Your task to perform on an android device: choose inbox layout in the gmail app Image 0: 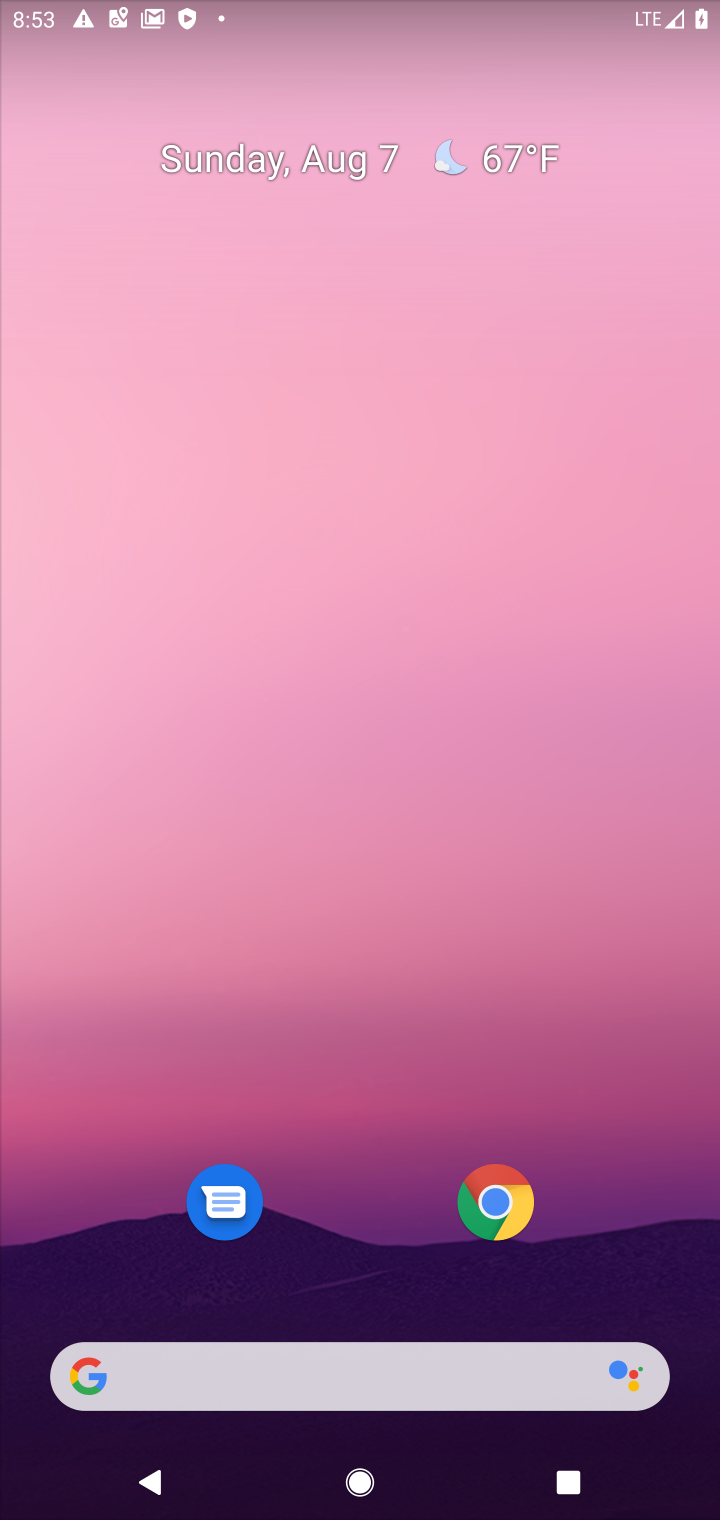
Step 0: drag from (371, 1263) to (488, 12)
Your task to perform on an android device: choose inbox layout in the gmail app Image 1: 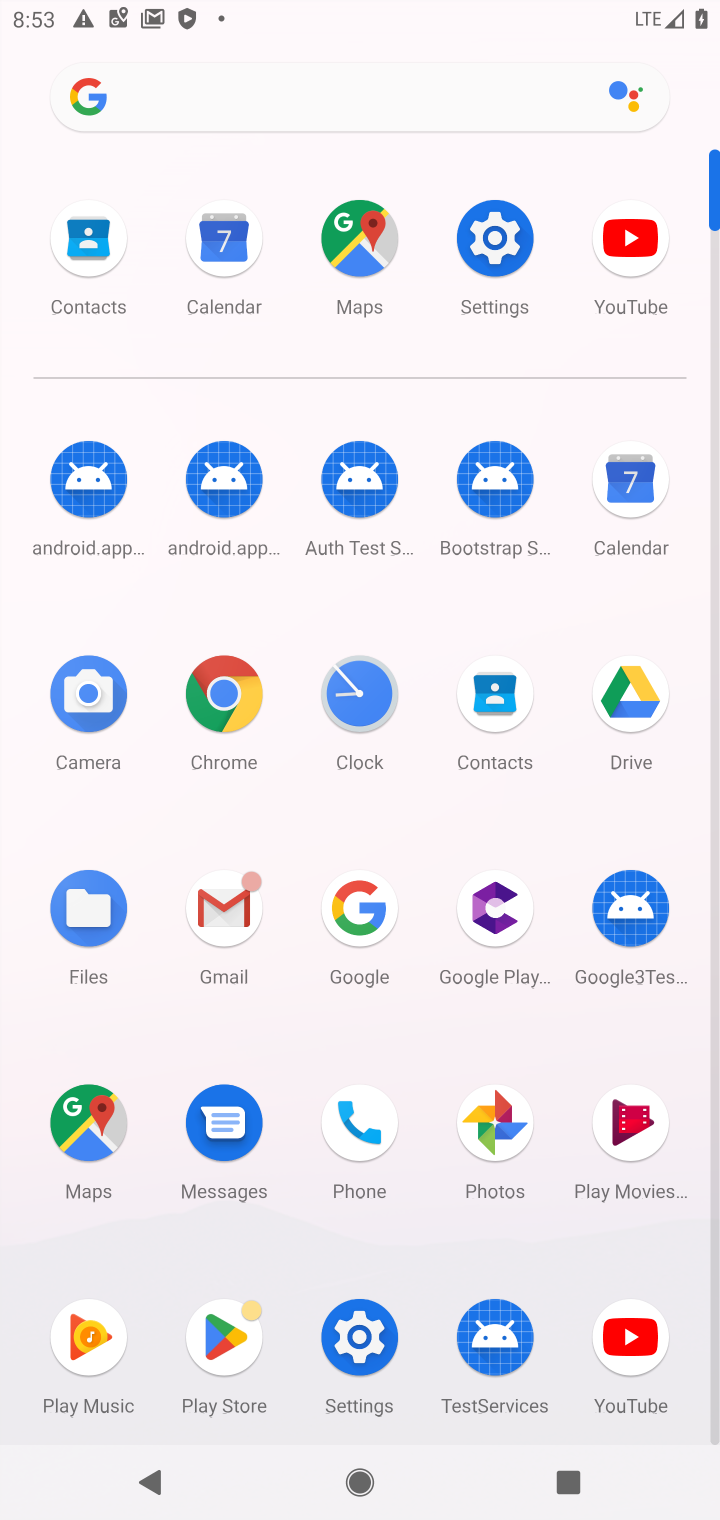
Step 1: click (188, 904)
Your task to perform on an android device: choose inbox layout in the gmail app Image 2: 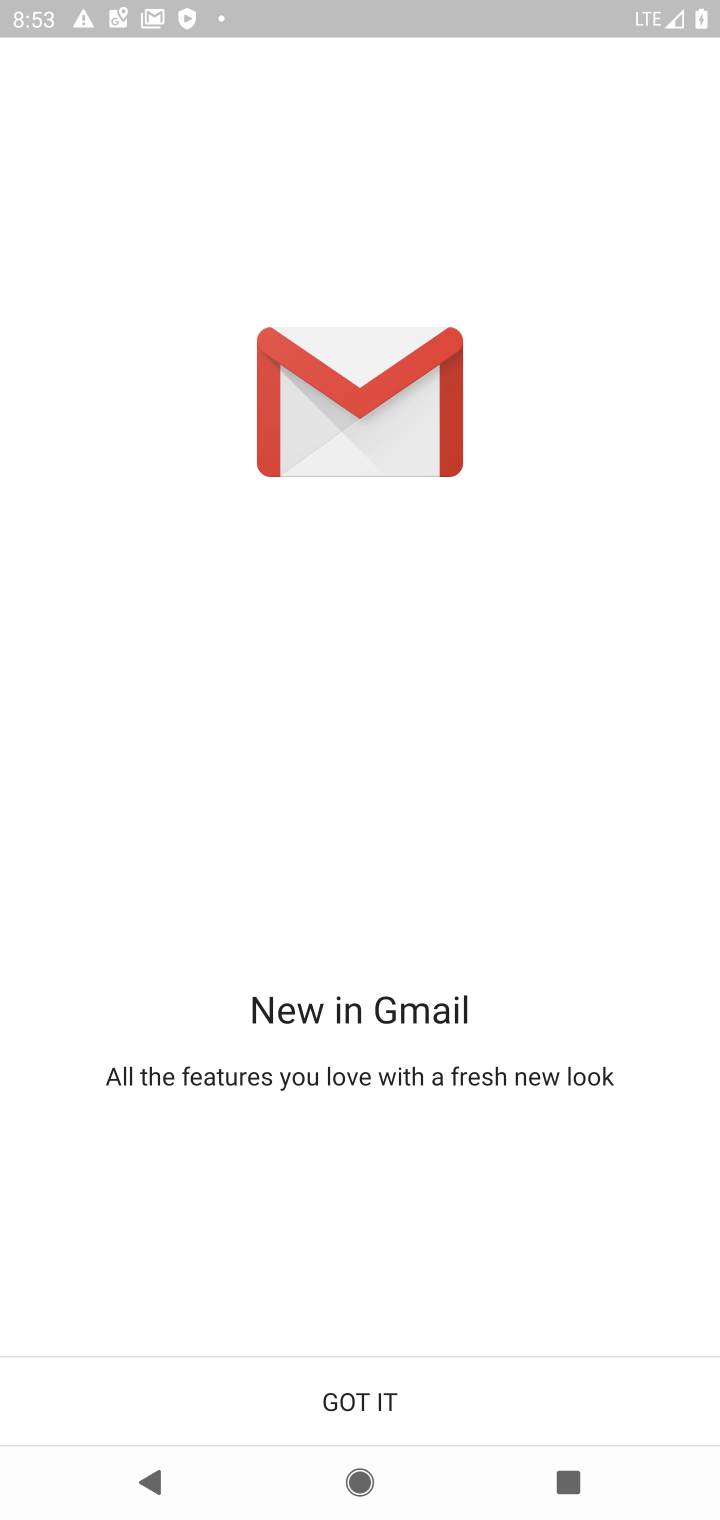
Step 2: click (513, 1388)
Your task to perform on an android device: choose inbox layout in the gmail app Image 3: 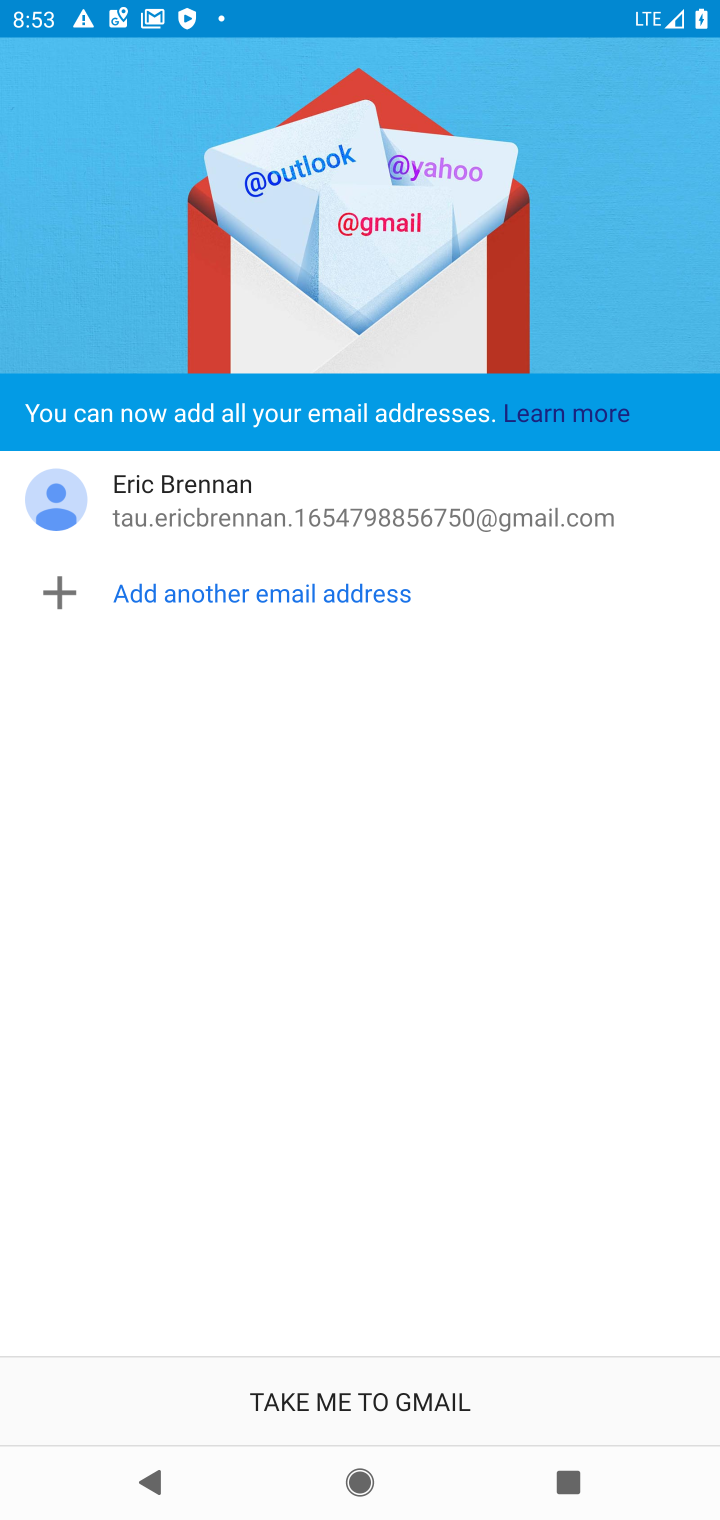
Step 3: click (513, 1388)
Your task to perform on an android device: choose inbox layout in the gmail app Image 4: 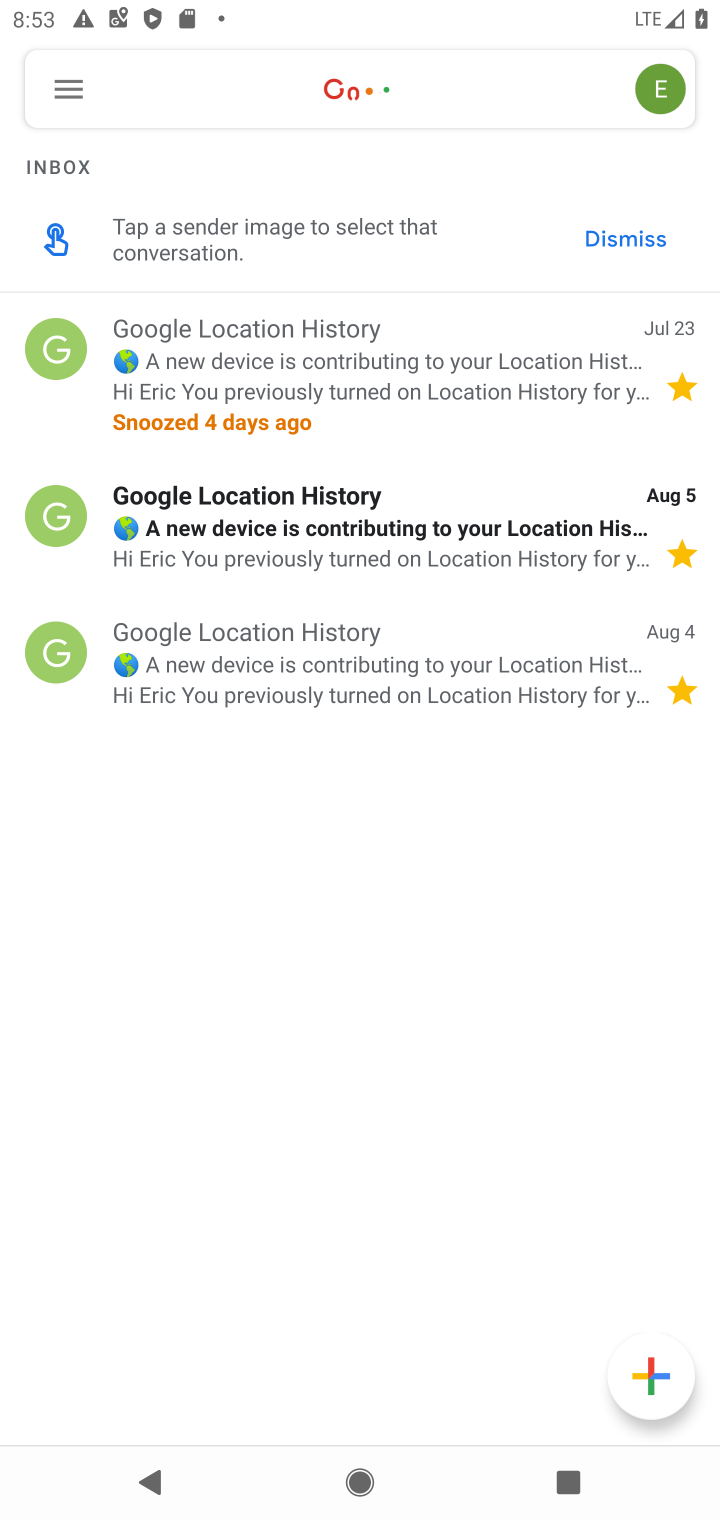
Step 4: click (80, 73)
Your task to perform on an android device: choose inbox layout in the gmail app Image 5: 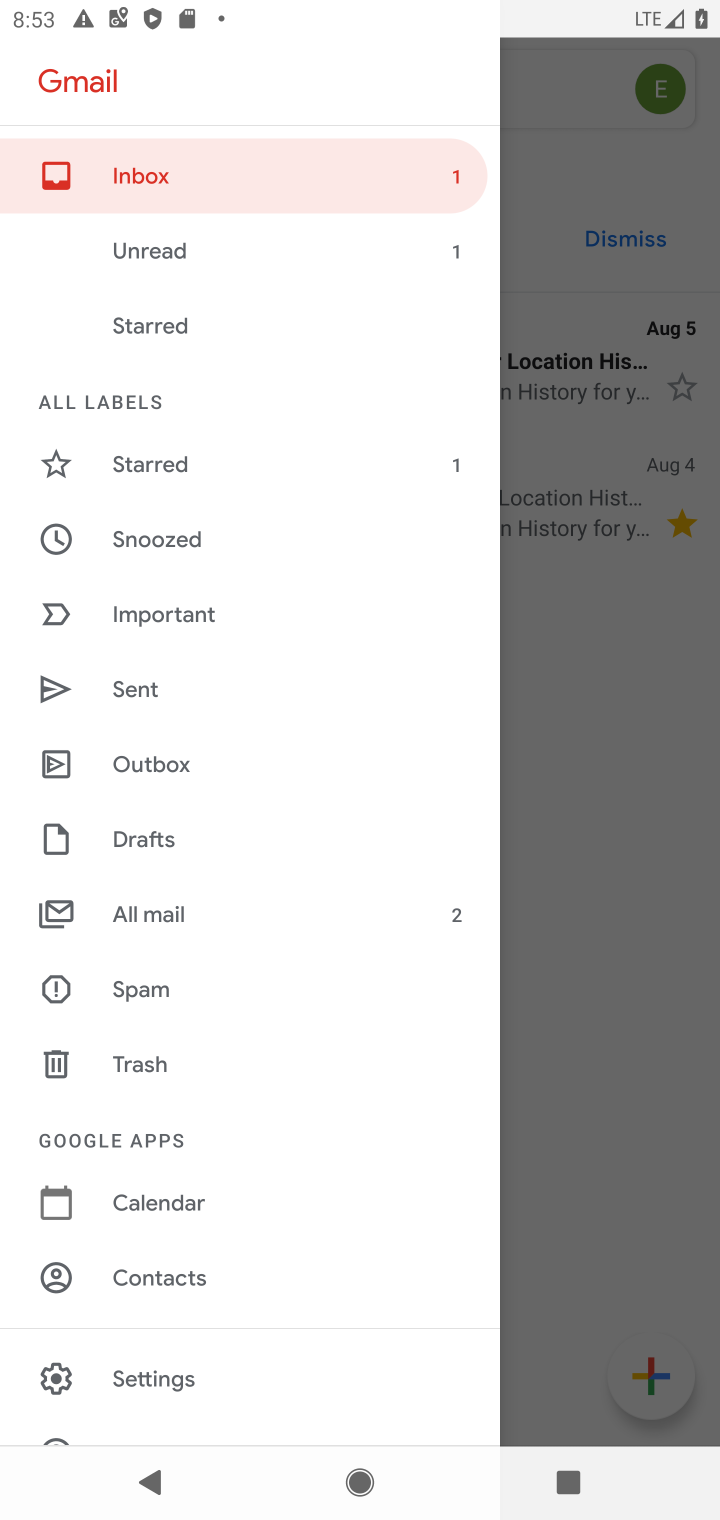
Step 5: click (216, 1371)
Your task to perform on an android device: choose inbox layout in the gmail app Image 6: 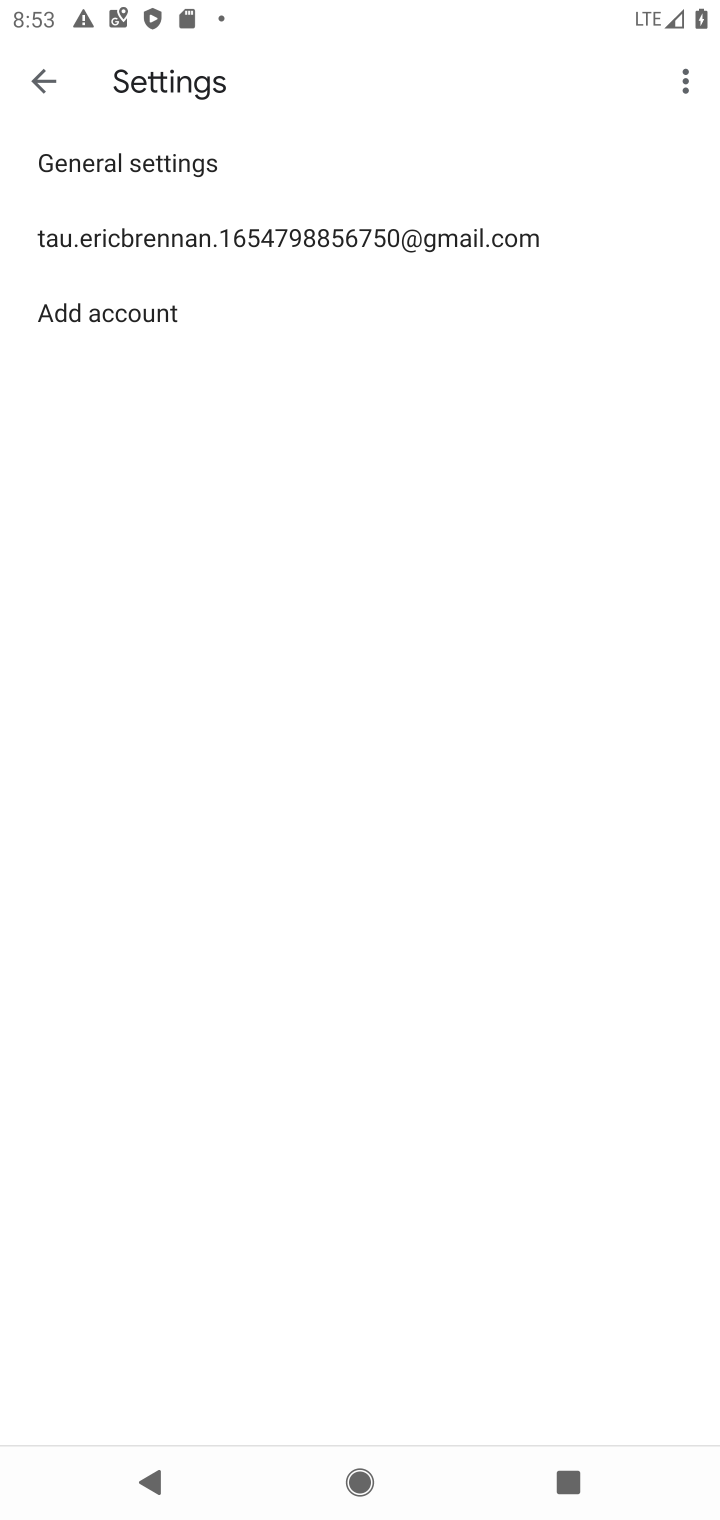
Step 6: click (376, 228)
Your task to perform on an android device: choose inbox layout in the gmail app Image 7: 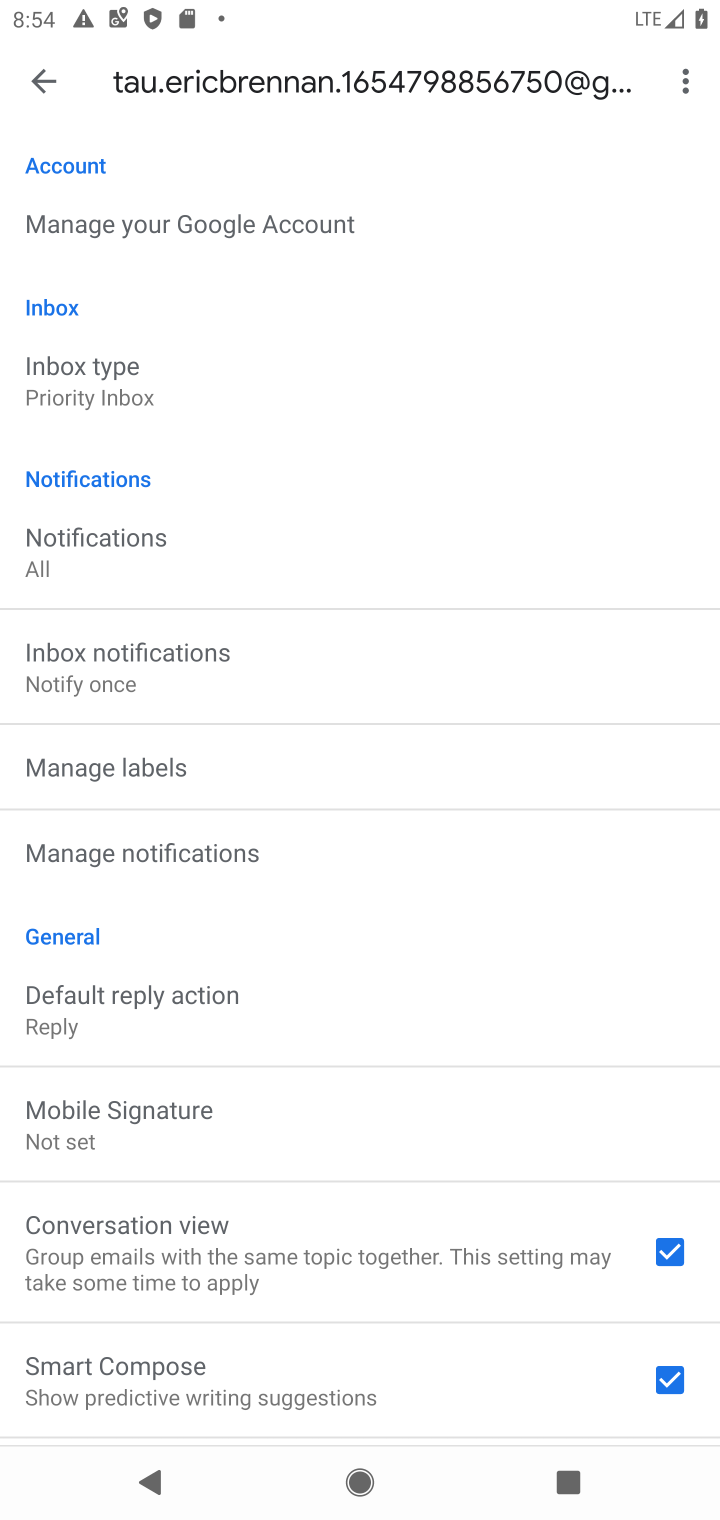
Step 7: click (89, 370)
Your task to perform on an android device: choose inbox layout in the gmail app Image 8: 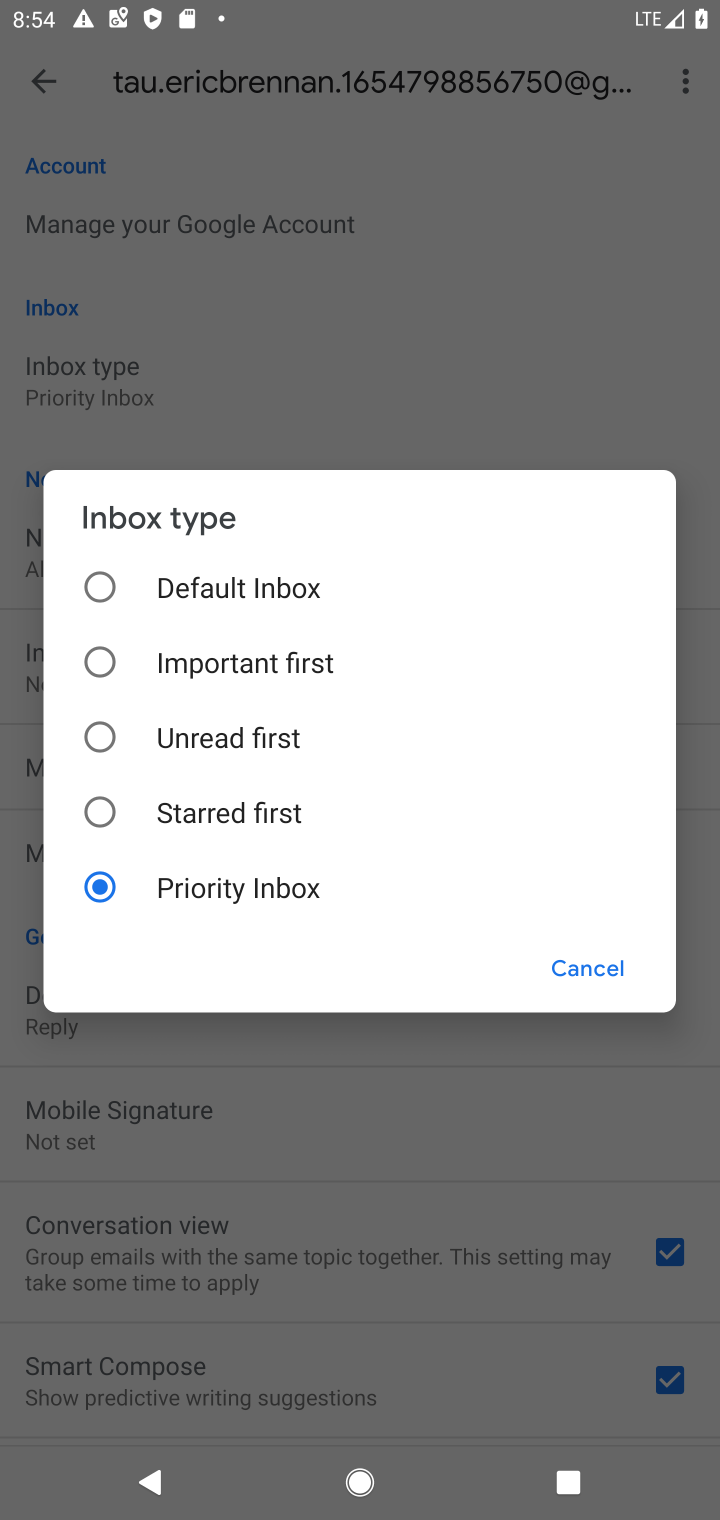
Step 8: click (268, 566)
Your task to perform on an android device: choose inbox layout in the gmail app Image 9: 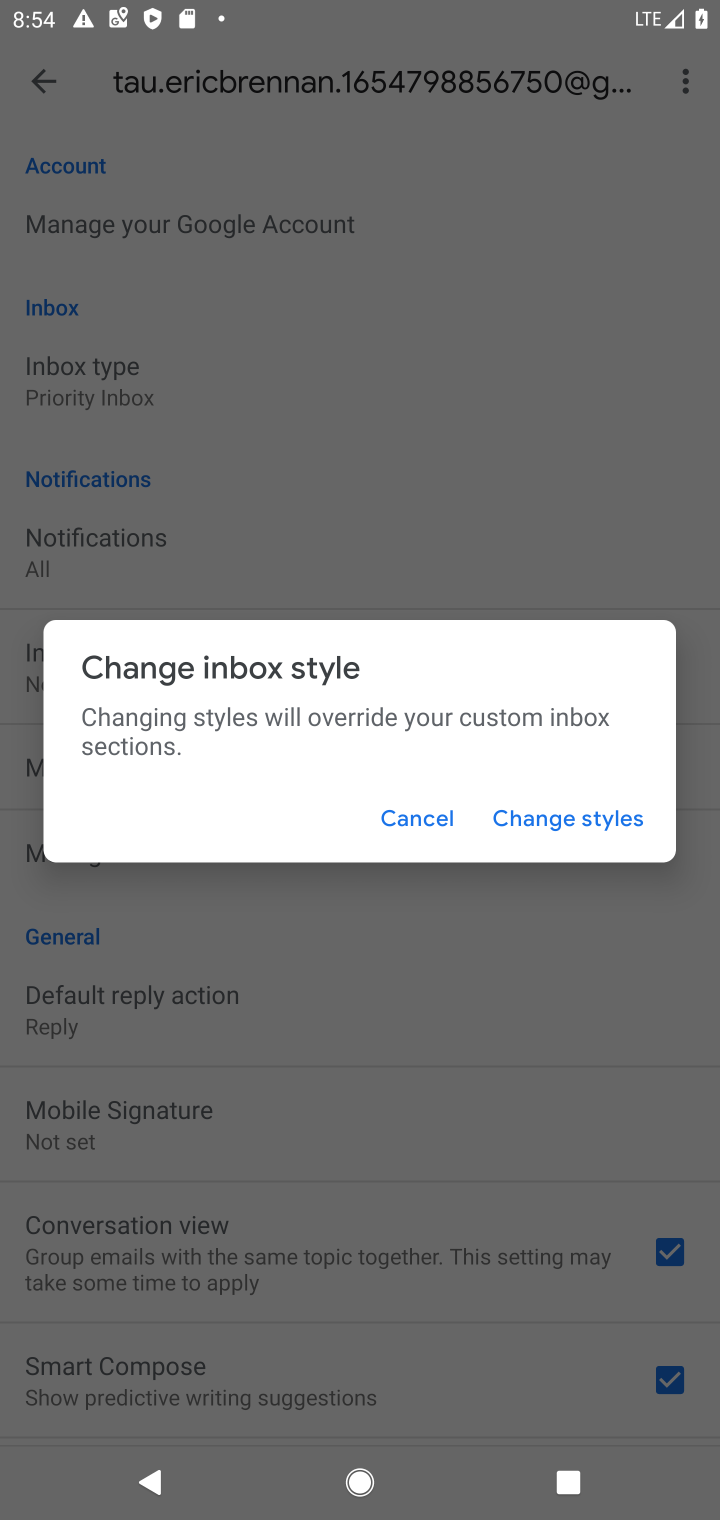
Step 9: click (570, 810)
Your task to perform on an android device: choose inbox layout in the gmail app Image 10: 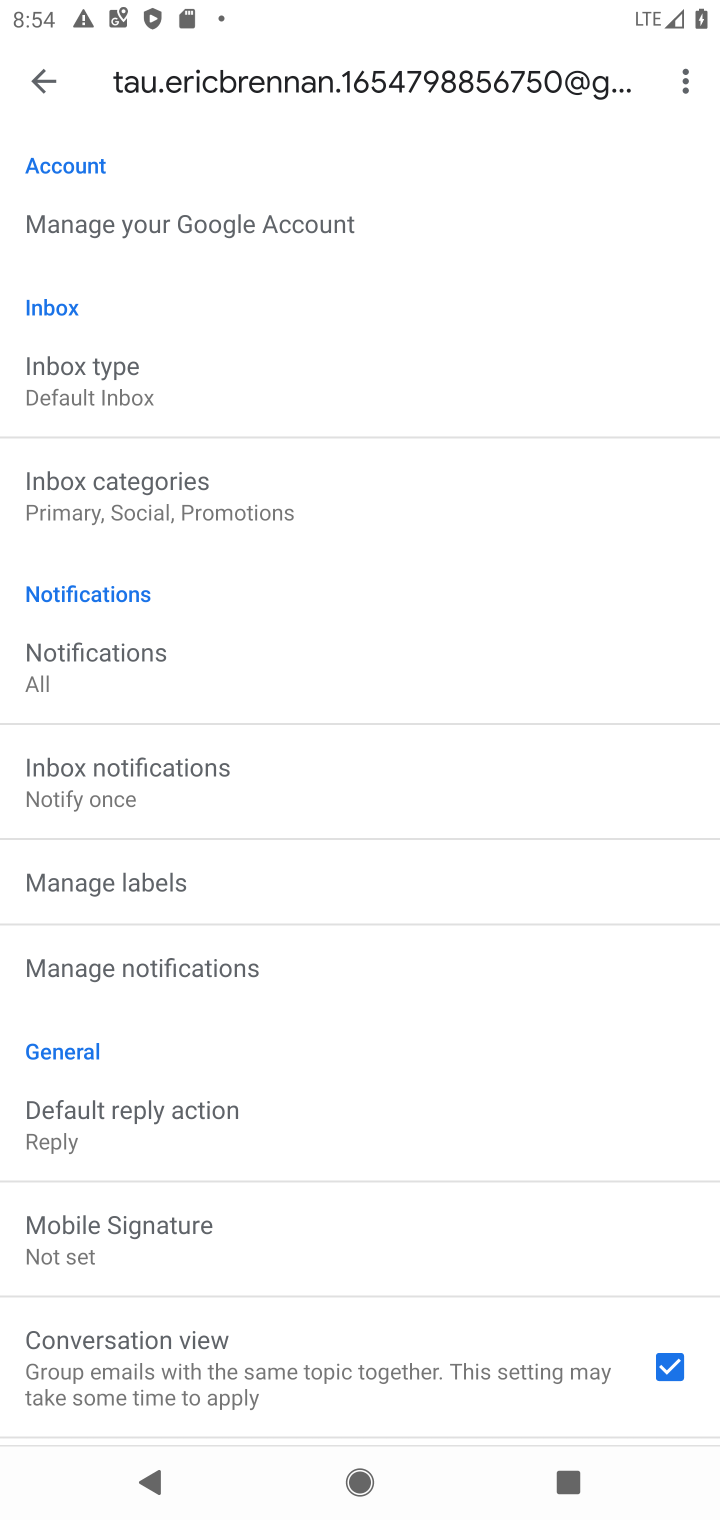
Step 10: task complete